Your task to perform on an android device: Open calendar and show me the first week of next month Image 0: 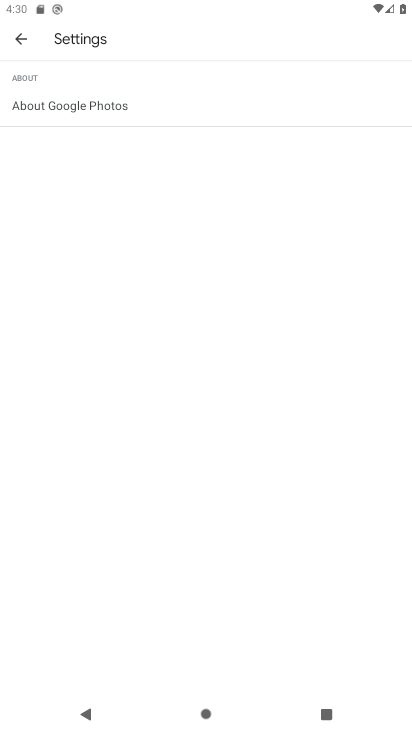
Step 0: press home button
Your task to perform on an android device: Open calendar and show me the first week of next month Image 1: 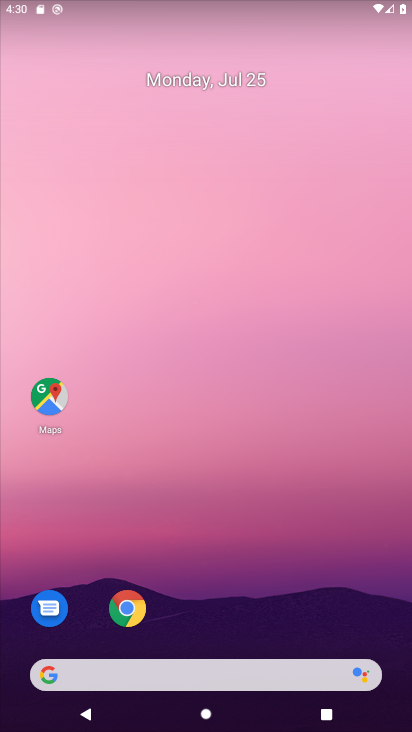
Step 1: drag from (215, 133) to (207, 21)
Your task to perform on an android device: Open calendar and show me the first week of next month Image 2: 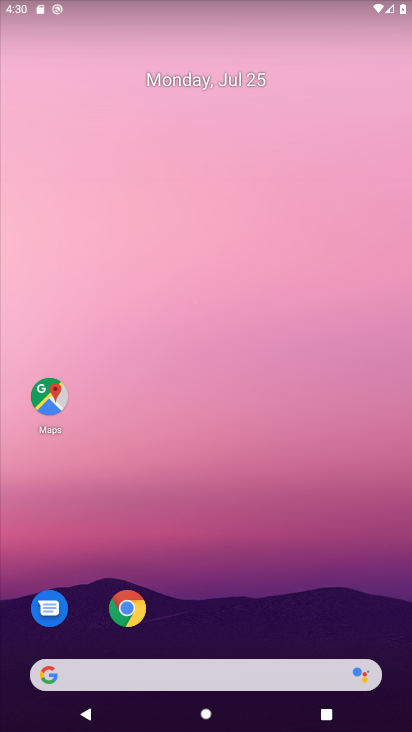
Step 2: drag from (229, 632) to (196, 2)
Your task to perform on an android device: Open calendar and show me the first week of next month Image 3: 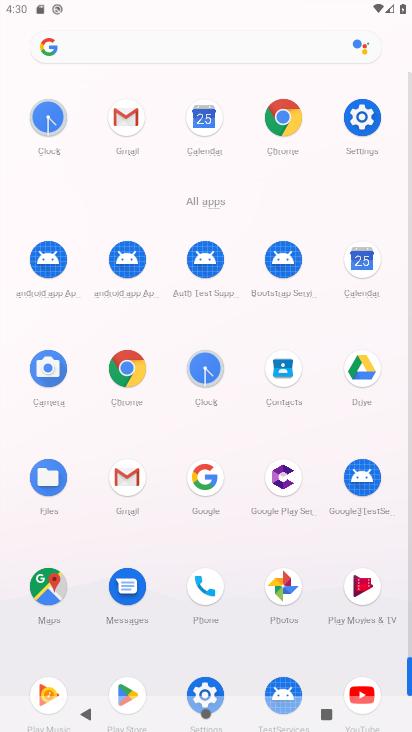
Step 3: click (372, 268)
Your task to perform on an android device: Open calendar and show me the first week of next month Image 4: 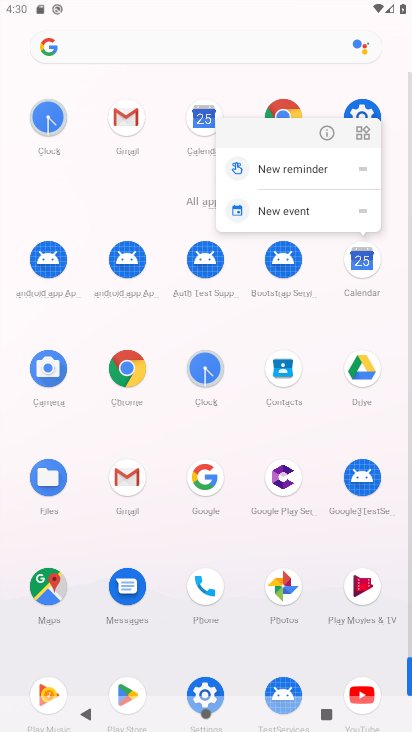
Step 4: click (364, 277)
Your task to perform on an android device: Open calendar and show me the first week of next month Image 5: 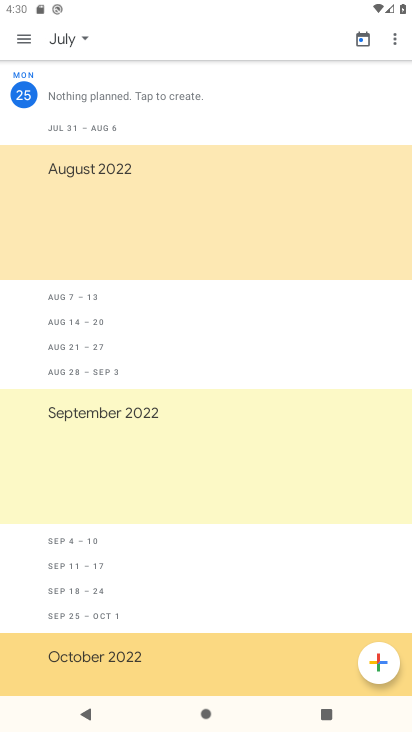
Step 5: click (22, 34)
Your task to perform on an android device: Open calendar and show me the first week of next month Image 6: 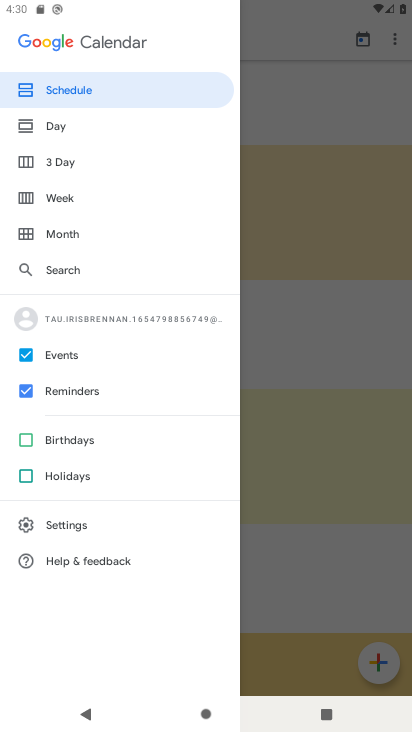
Step 6: click (68, 193)
Your task to perform on an android device: Open calendar and show me the first week of next month Image 7: 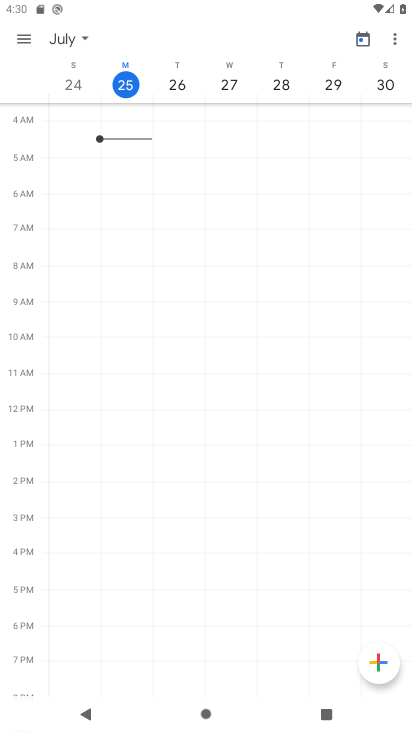
Step 7: task complete